Your task to perform on an android device: Open the Play Movies app and select the watchlist tab. Image 0: 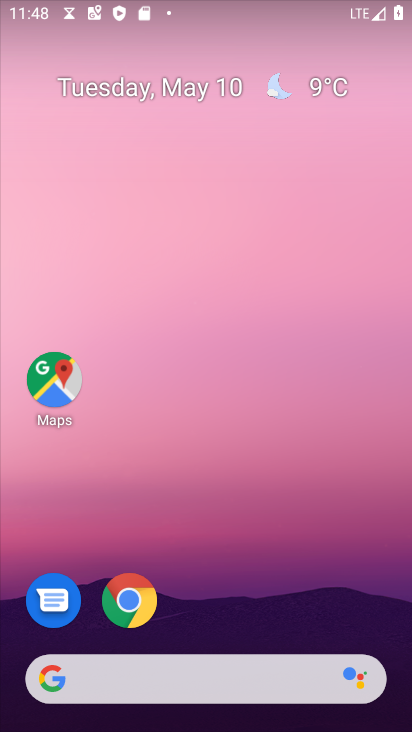
Step 0: drag from (209, 347) to (172, 103)
Your task to perform on an android device: Open the Play Movies app and select the watchlist tab. Image 1: 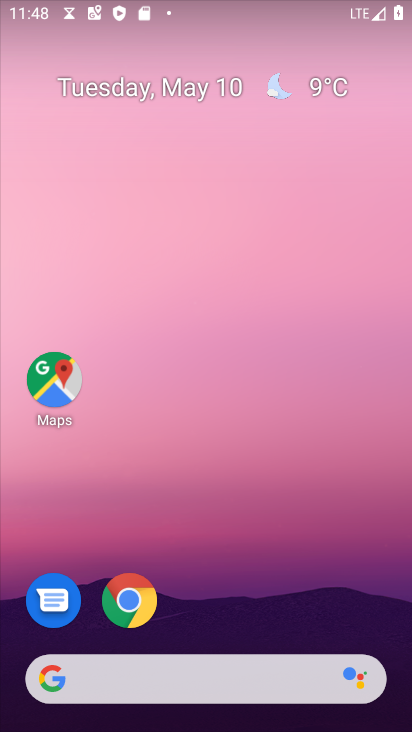
Step 1: drag from (249, 568) to (192, 44)
Your task to perform on an android device: Open the Play Movies app and select the watchlist tab. Image 2: 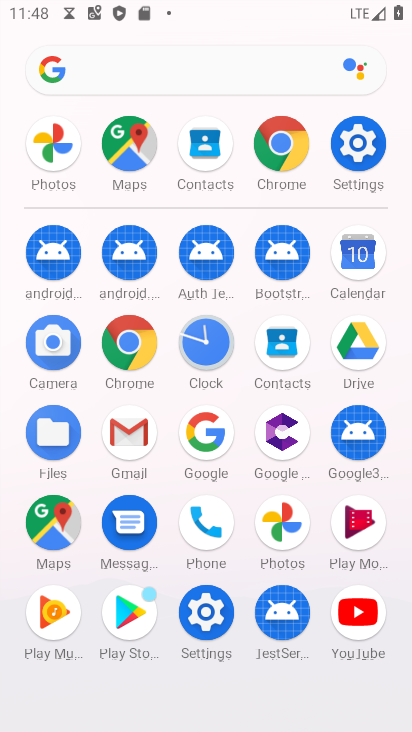
Step 2: click (357, 522)
Your task to perform on an android device: Open the Play Movies app and select the watchlist tab. Image 3: 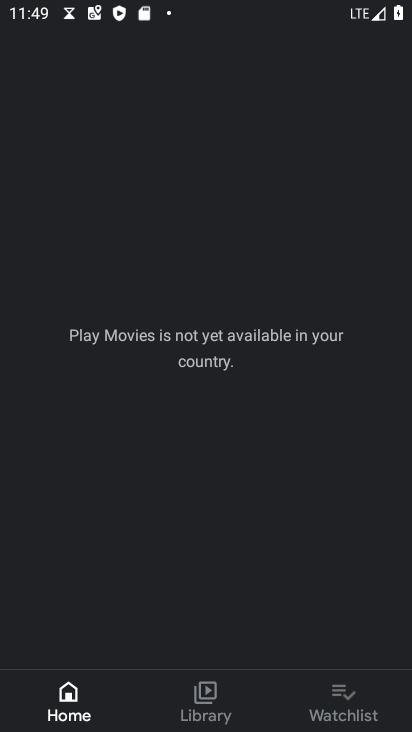
Step 3: click (341, 693)
Your task to perform on an android device: Open the Play Movies app and select the watchlist tab. Image 4: 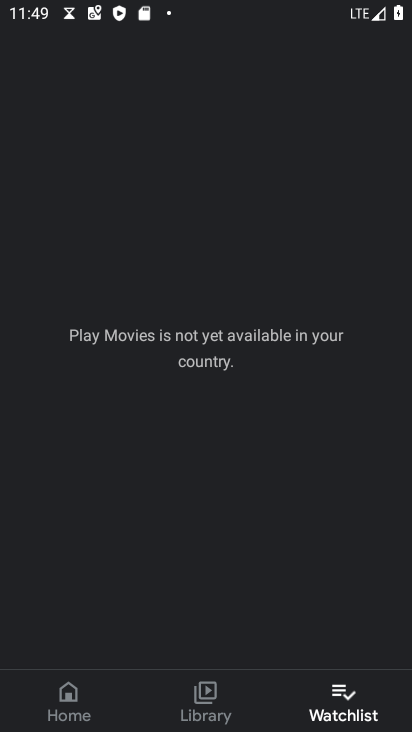
Step 4: task complete